Your task to perform on an android device: Open Chrome and go to settings Image 0: 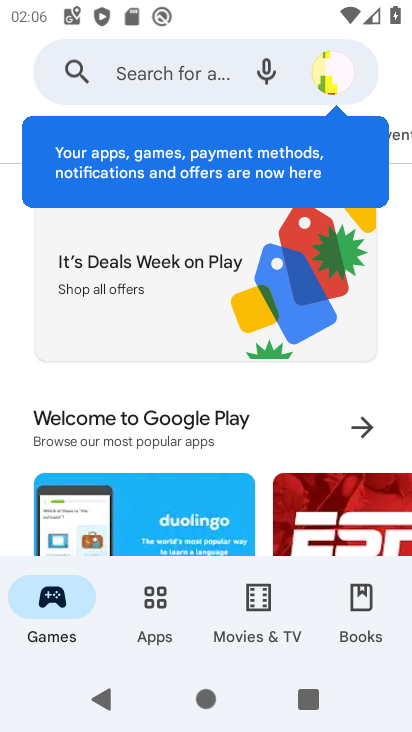
Step 0: press home button
Your task to perform on an android device: Open Chrome and go to settings Image 1: 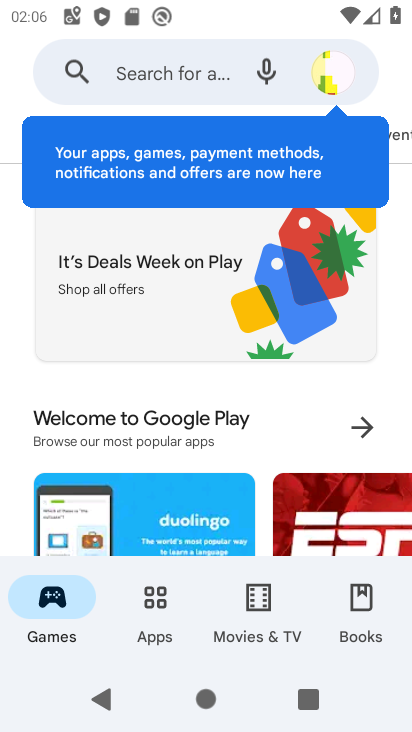
Step 1: drag from (254, 357) to (299, 31)
Your task to perform on an android device: Open Chrome and go to settings Image 2: 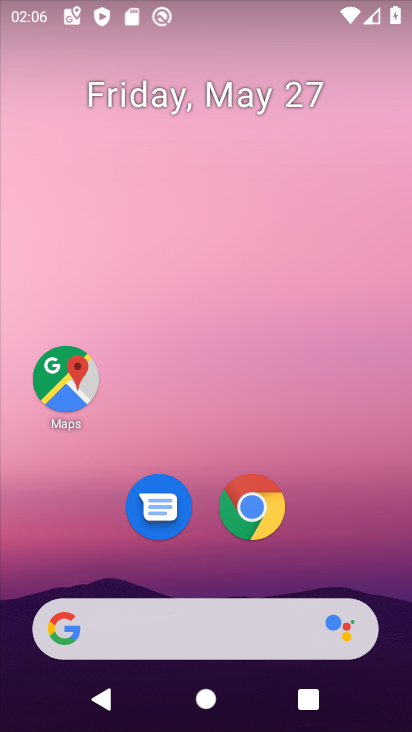
Step 2: click (239, 503)
Your task to perform on an android device: Open Chrome and go to settings Image 3: 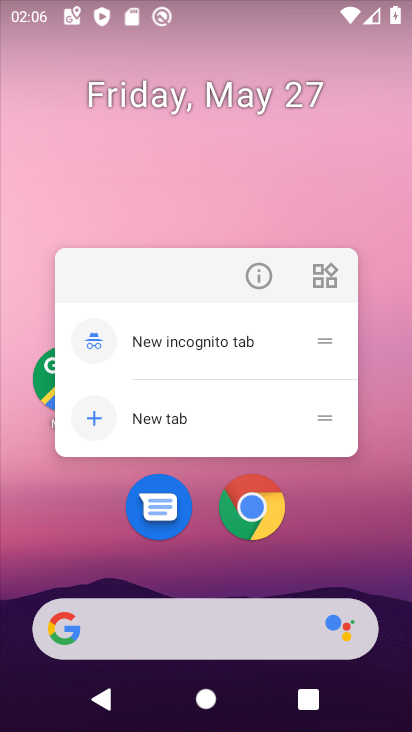
Step 3: click (262, 285)
Your task to perform on an android device: Open Chrome and go to settings Image 4: 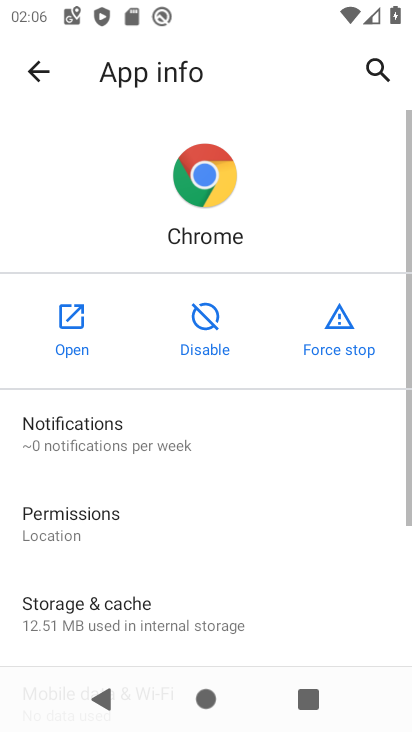
Step 4: click (76, 316)
Your task to perform on an android device: Open Chrome and go to settings Image 5: 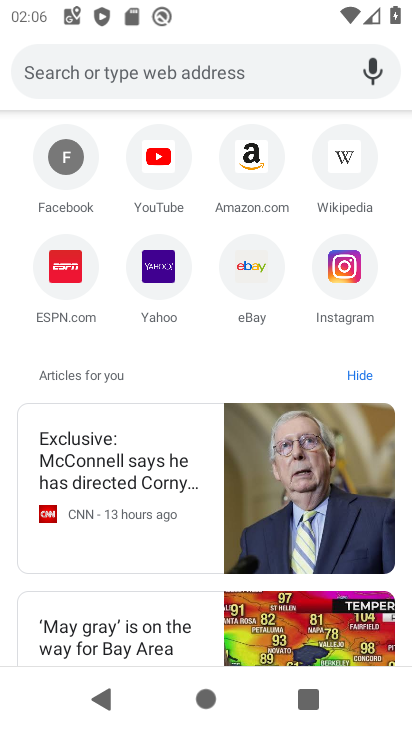
Step 5: task complete